Your task to perform on an android device: Go to ESPN.com Image 0: 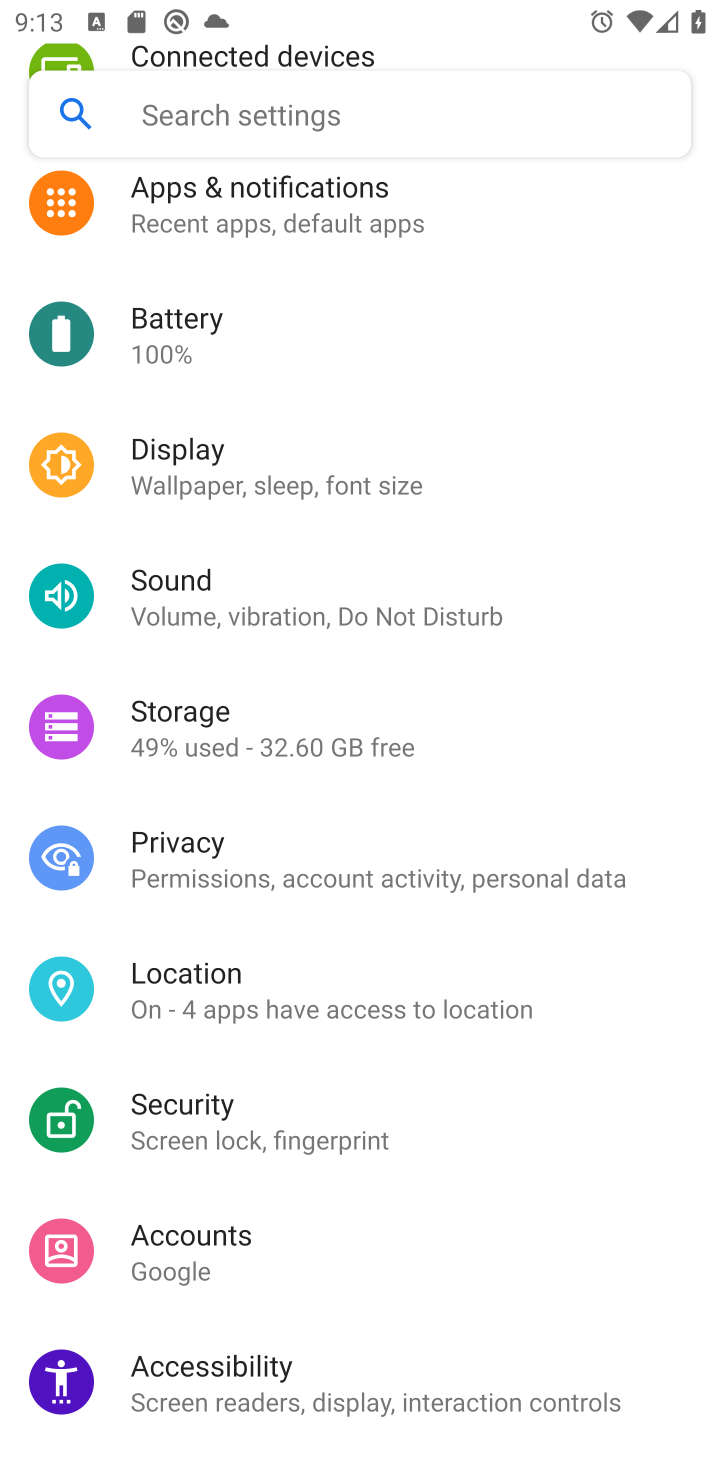
Step 0: press home button
Your task to perform on an android device: Go to ESPN.com Image 1: 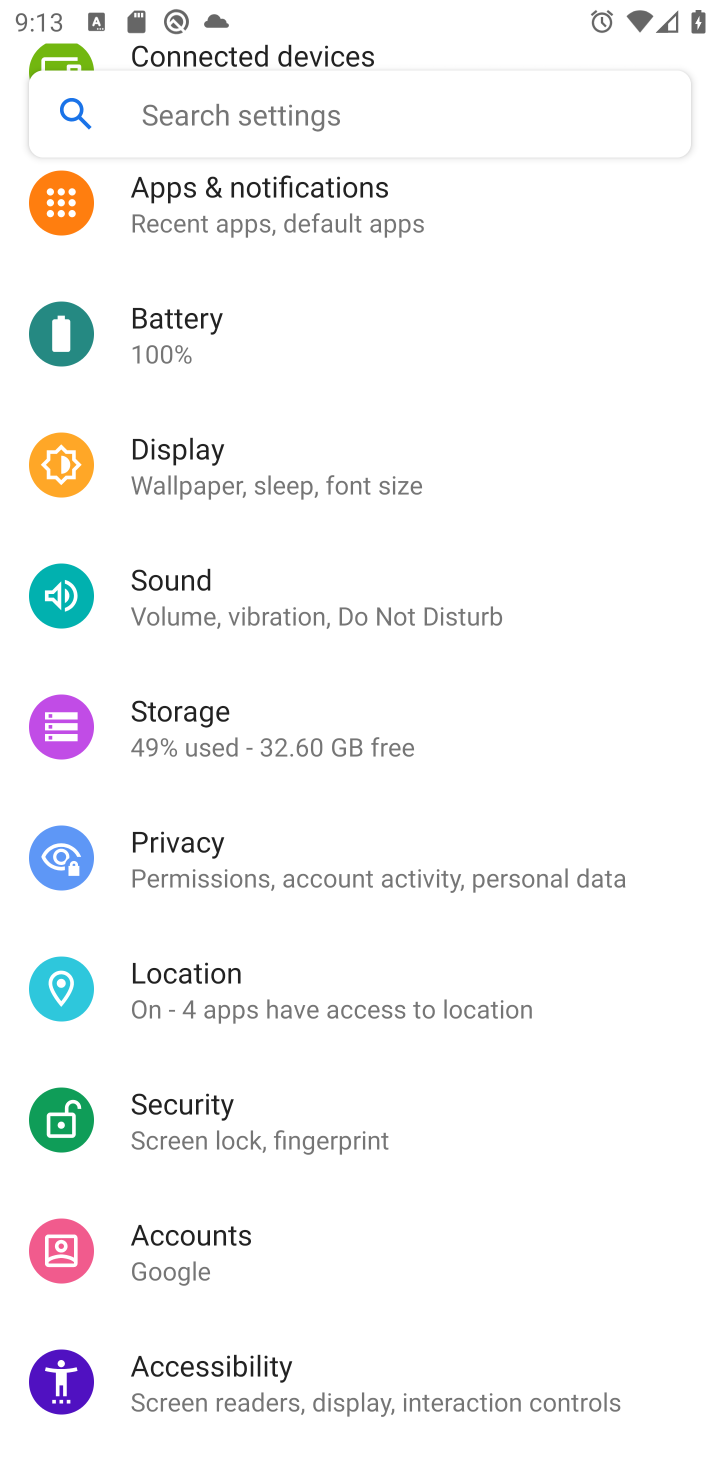
Step 1: press home button
Your task to perform on an android device: Go to ESPN.com Image 2: 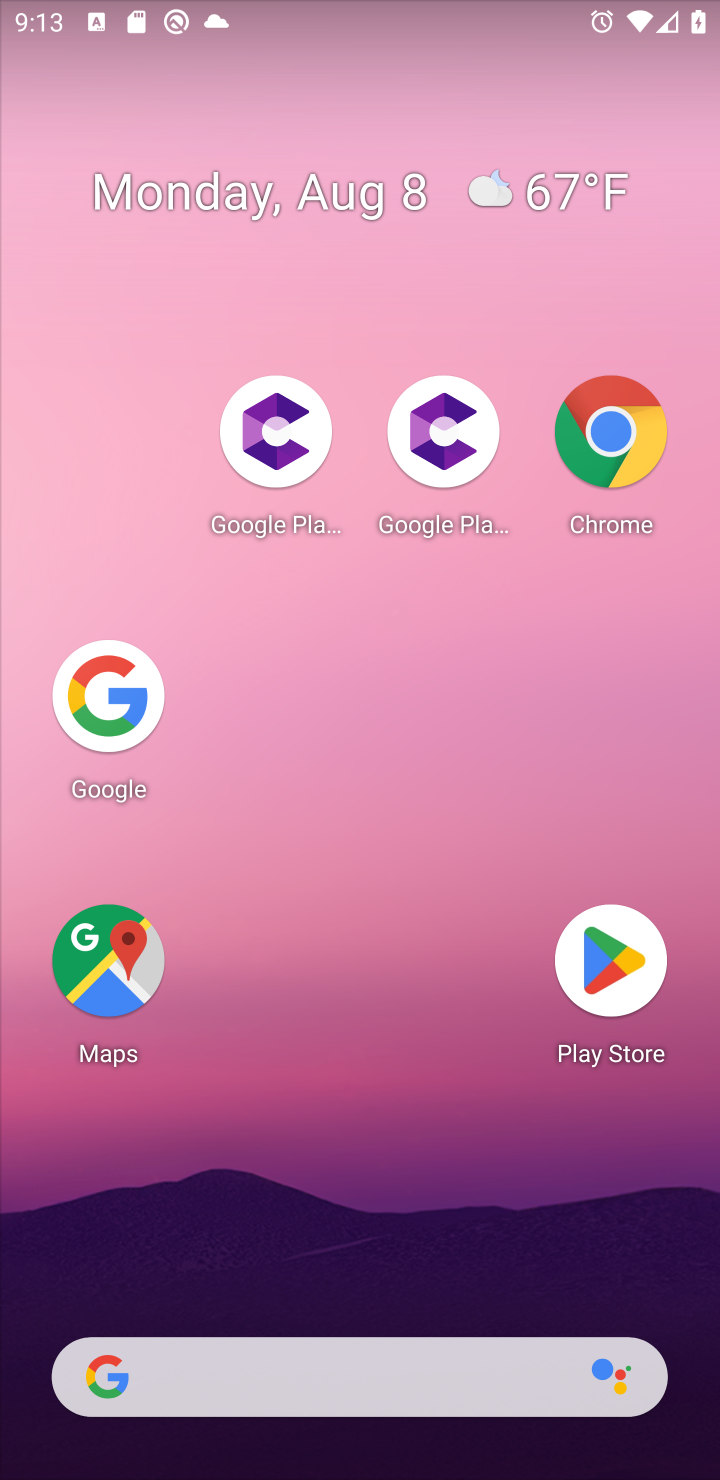
Step 2: click (107, 685)
Your task to perform on an android device: Go to ESPN.com Image 3: 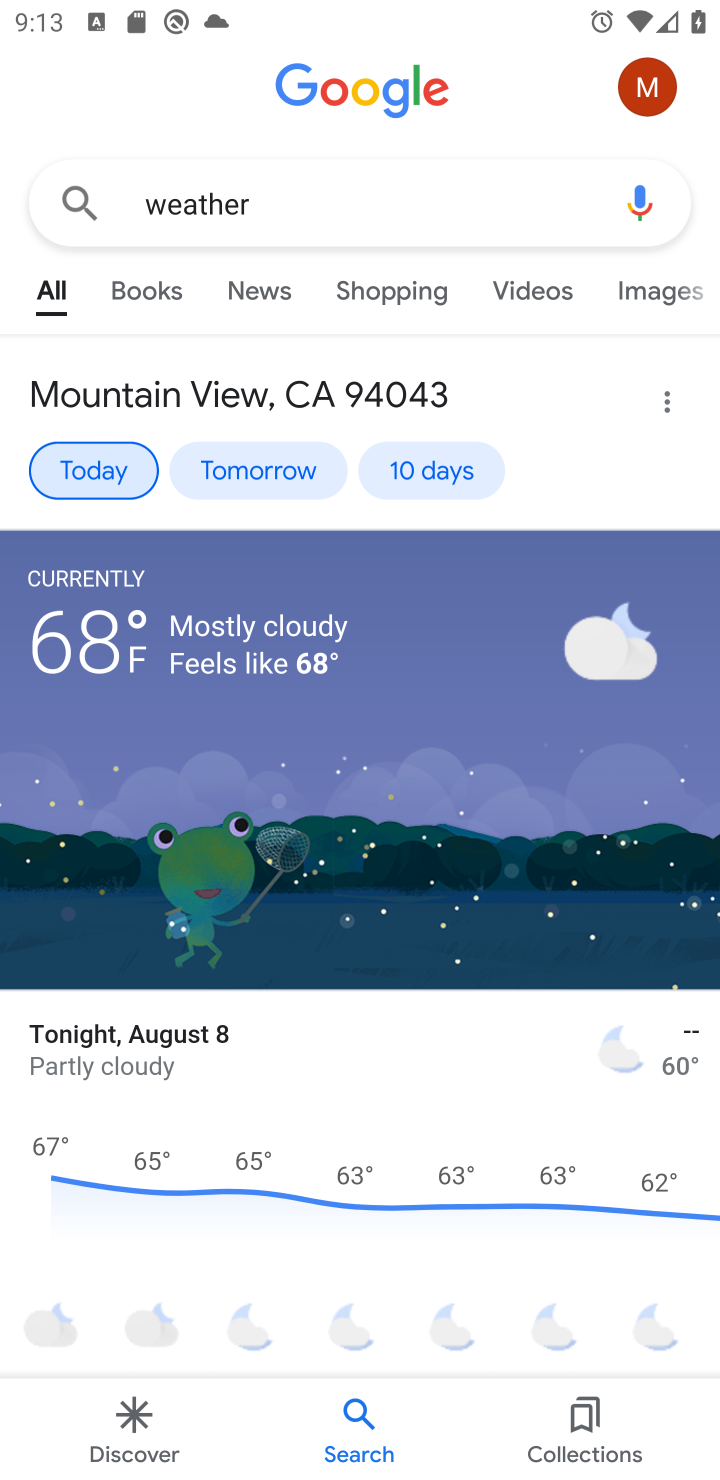
Step 3: click (284, 308)
Your task to perform on an android device: Go to ESPN.com Image 4: 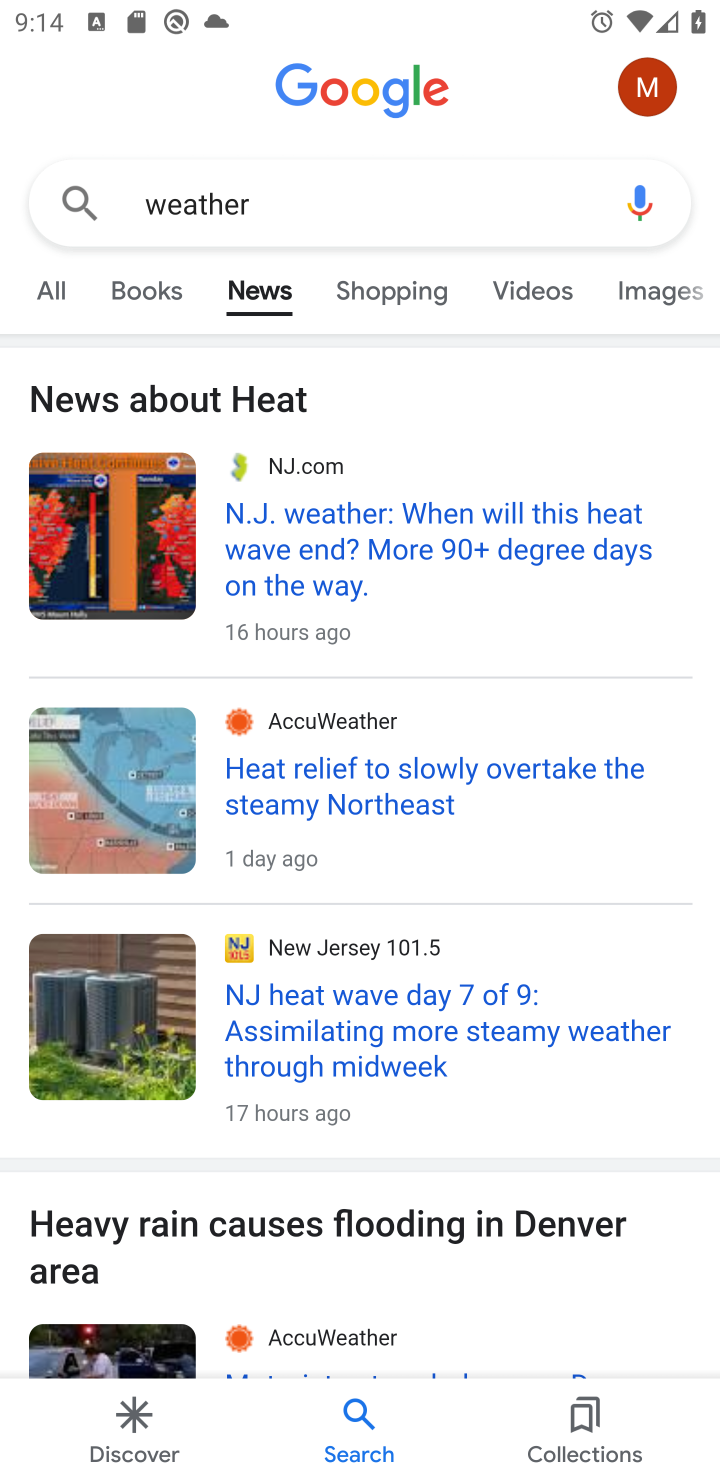
Step 4: click (340, 181)
Your task to perform on an android device: Go to ESPN.com Image 5: 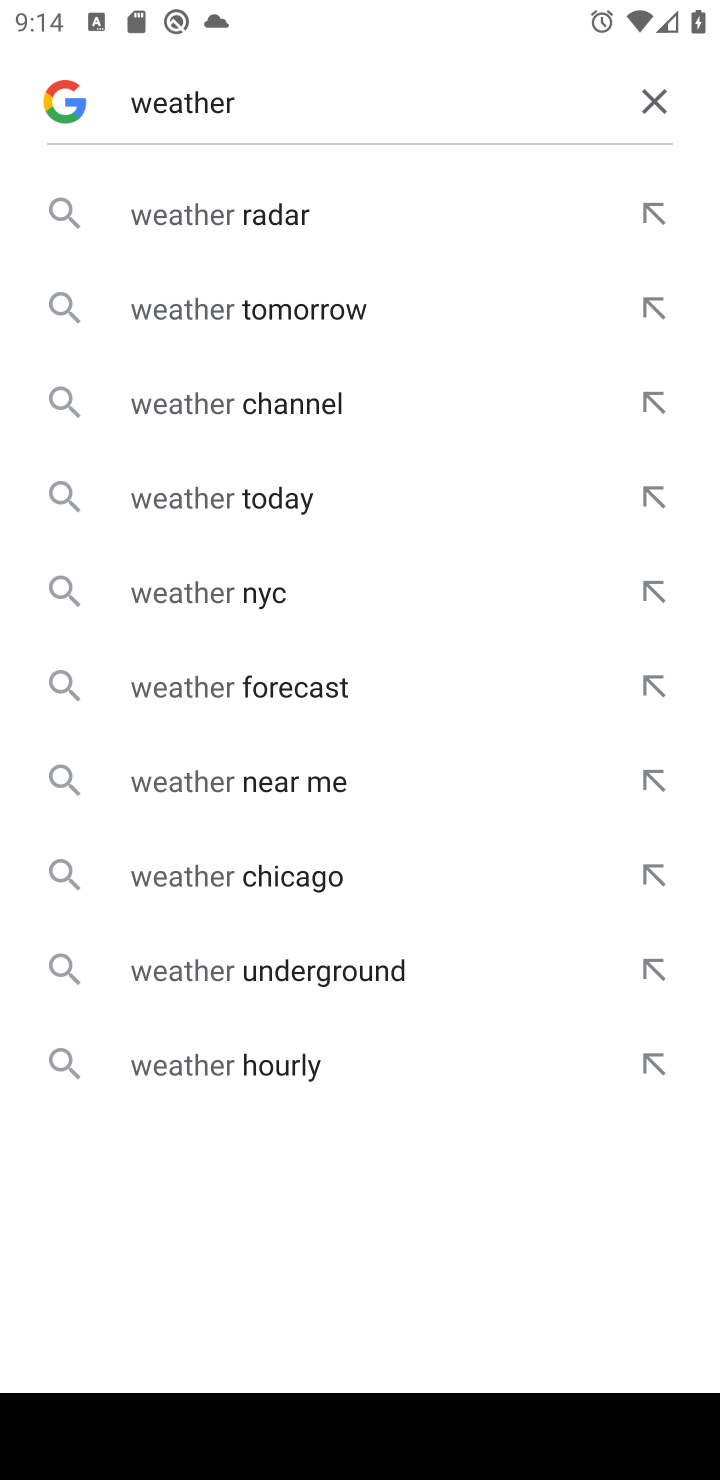
Step 5: click (666, 95)
Your task to perform on an android device: Go to ESPN.com Image 6: 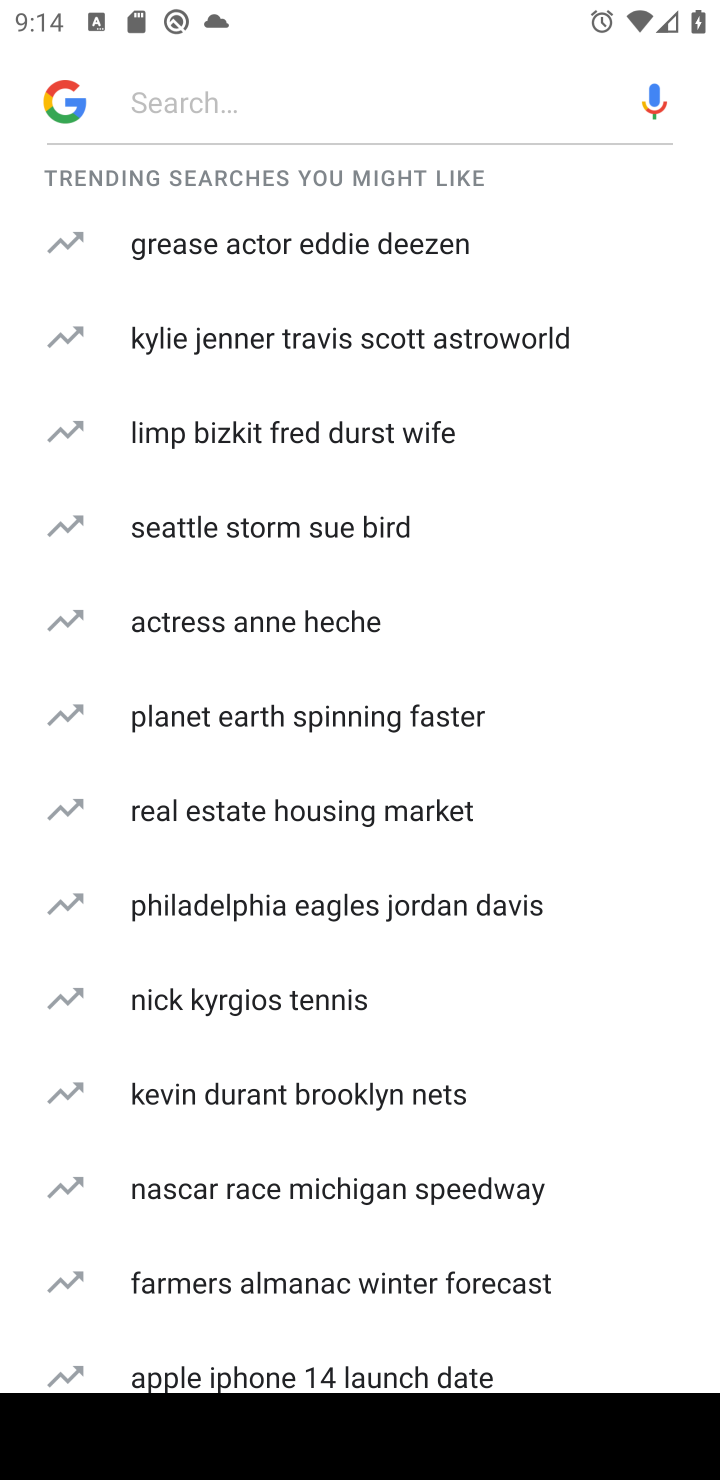
Step 6: task complete